Your task to perform on an android device: Go to Maps Image 0: 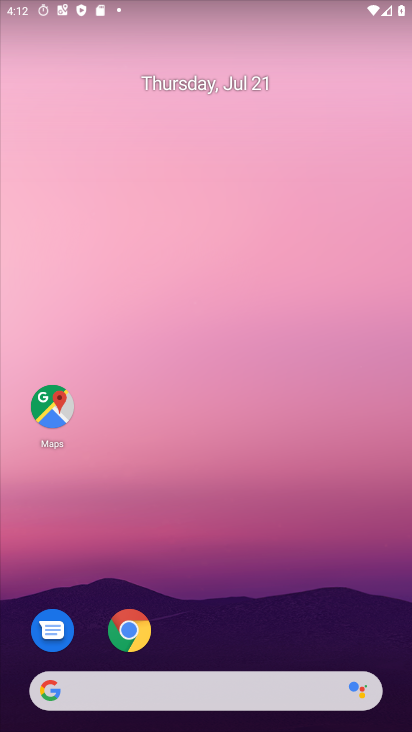
Step 0: click (52, 406)
Your task to perform on an android device: Go to Maps Image 1: 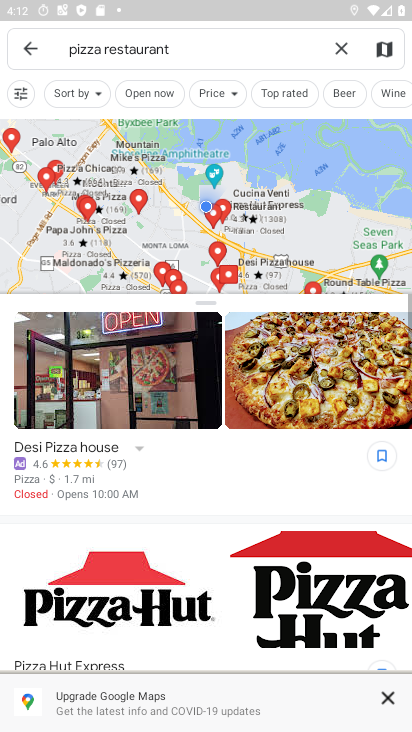
Step 1: click (342, 46)
Your task to perform on an android device: Go to Maps Image 2: 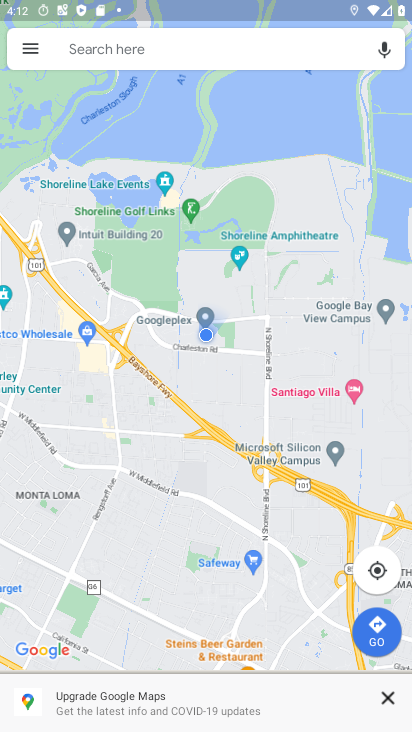
Step 2: task complete